Your task to perform on an android device: make emails show in primary in the gmail app Image 0: 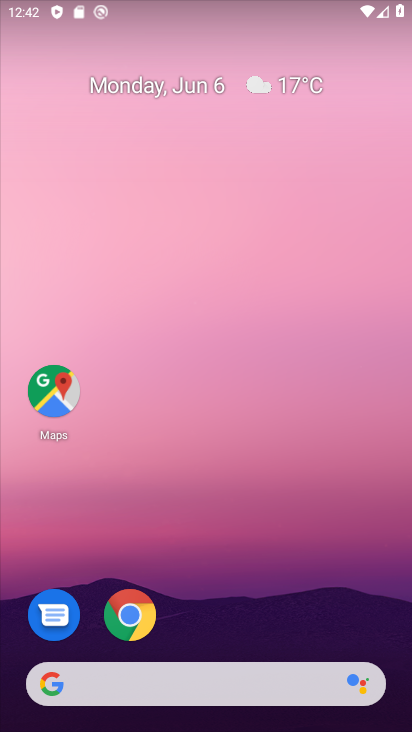
Step 0: drag from (204, 648) to (227, 192)
Your task to perform on an android device: make emails show in primary in the gmail app Image 1: 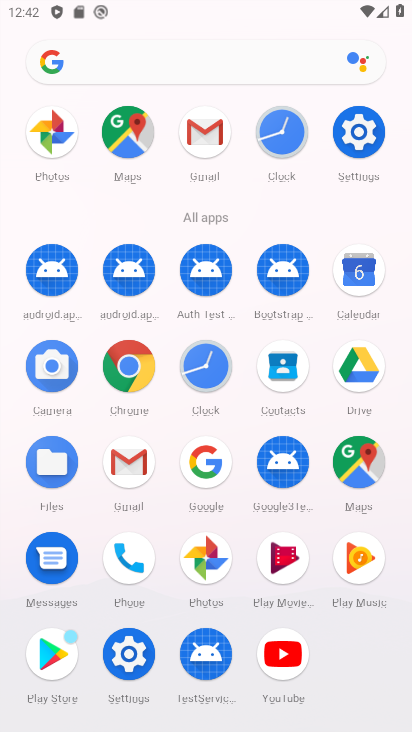
Step 1: click (129, 466)
Your task to perform on an android device: make emails show in primary in the gmail app Image 2: 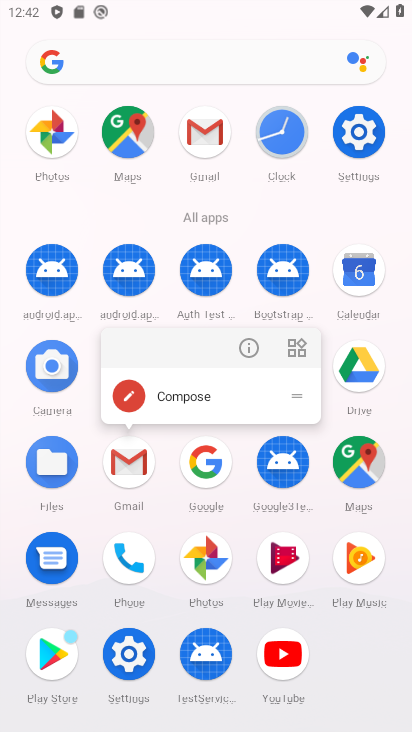
Step 2: click (249, 334)
Your task to perform on an android device: make emails show in primary in the gmail app Image 3: 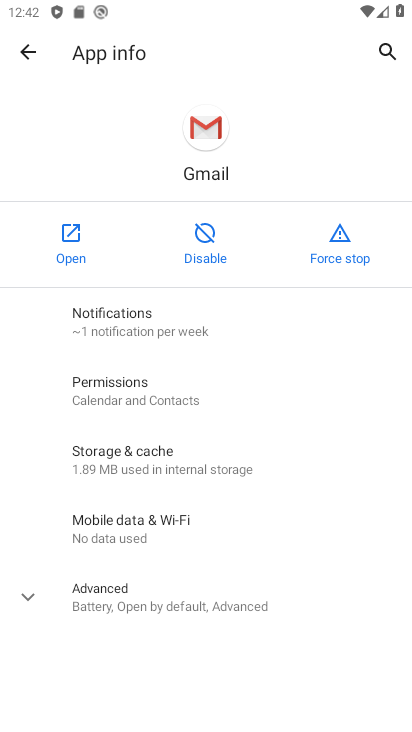
Step 3: click (80, 252)
Your task to perform on an android device: make emails show in primary in the gmail app Image 4: 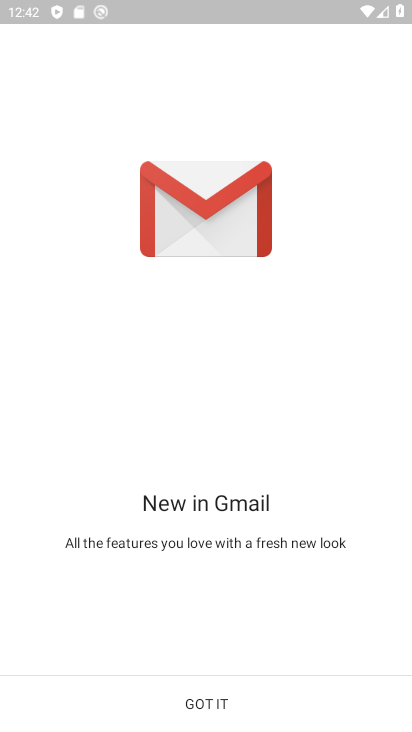
Step 4: click (176, 705)
Your task to perform on an android device: make emails show in primary in the gmail app Image 5: 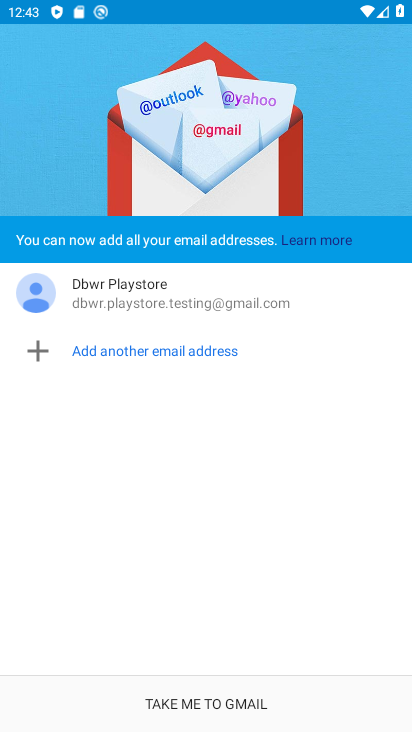
Step 5: click (179, 703)
Your task to perform on an android device: make emails show in primary in the gmail app Image 6: 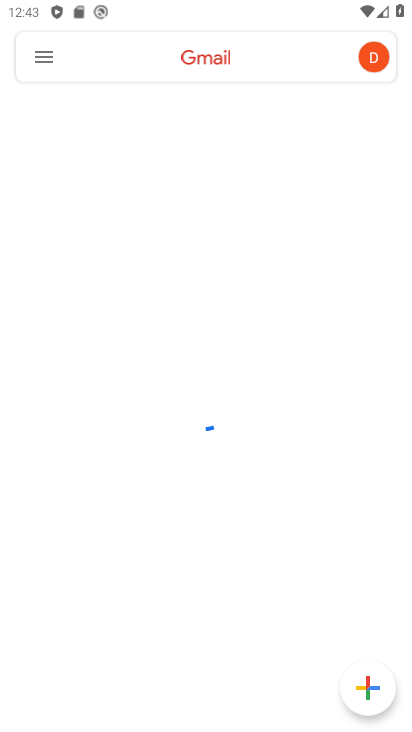
Step 6: click (40, 65)
Your task to perform on an android device: make emails show in primary in the gmail app Image 7: 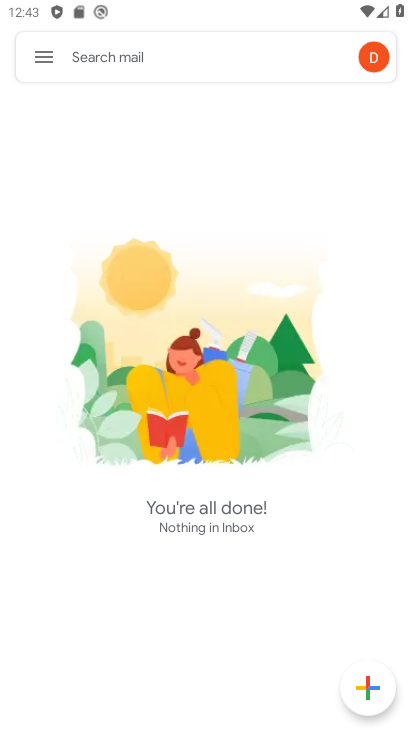
Step 7: click (37, 54)
Your task to perform on an android device: make emails show in primary in the gmail app Image 8: 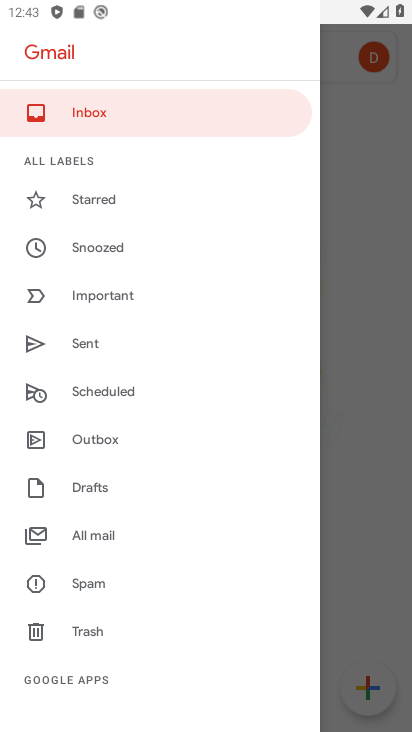
Step 8: drag from (171, 583) to (269, 186)
Your task to perform on an android device: make emails show in primary in the gmail app Image 9: 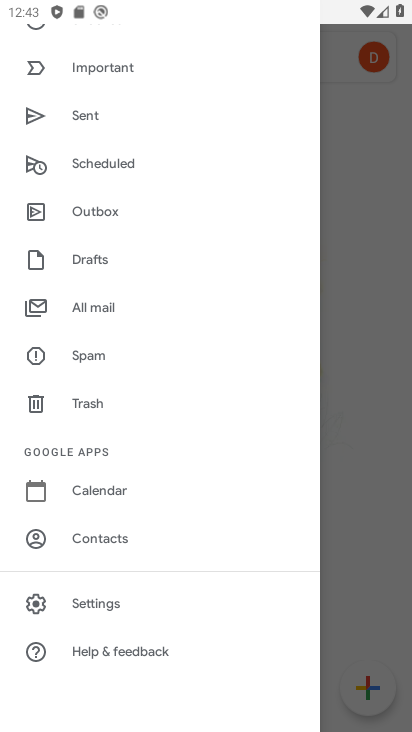
Step 9: drag from (174, 209) to (222, 729)
Your task to perform on an android device: make emails show in primary in the gmail app Image 10: 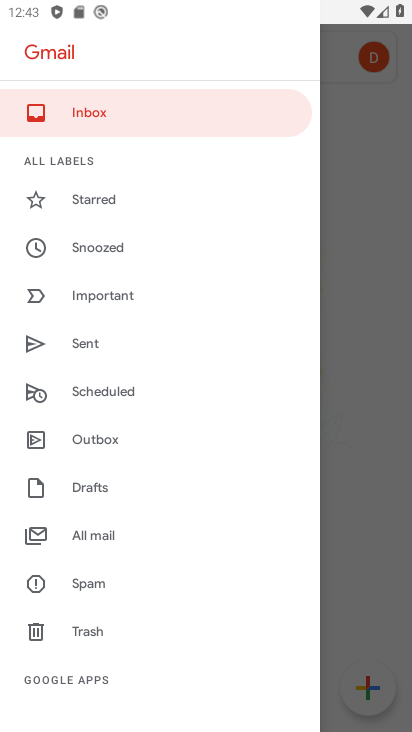
Step 10: drag from (189, 644) to (214, 399)
Your task to perform on an android device: make emails show in primary in the gmail app Image 11: 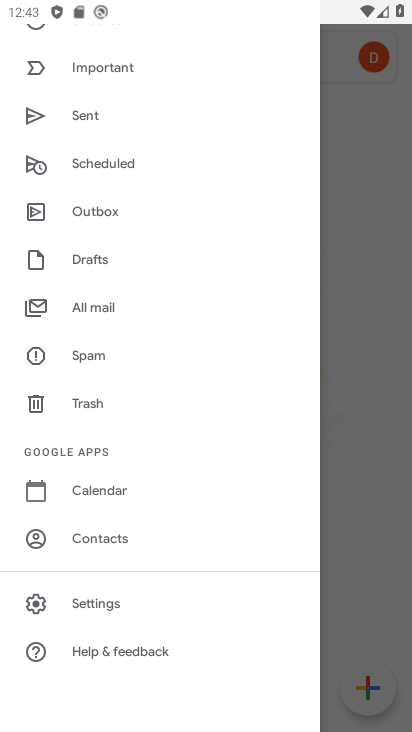
Step 11: drag from (197, 543) to (215, 231)
Your task to perform on an android device: make emails show in primary in the gmail app Image 12: 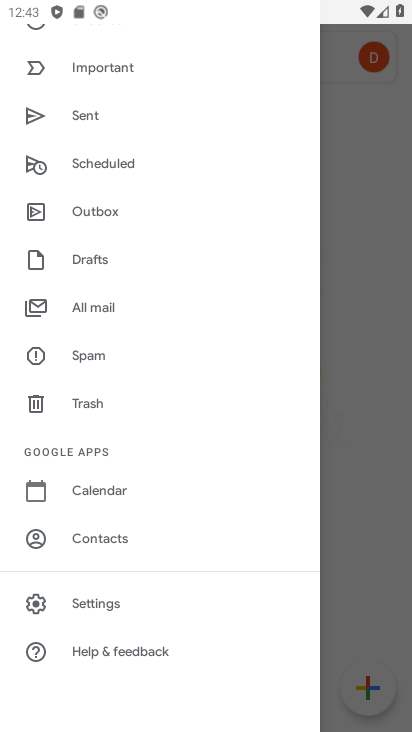
Step 12: drag from (189, 568) to (220, 275)
Your task to perform on an android device: make emails show in primary in the gmail app Image 13: 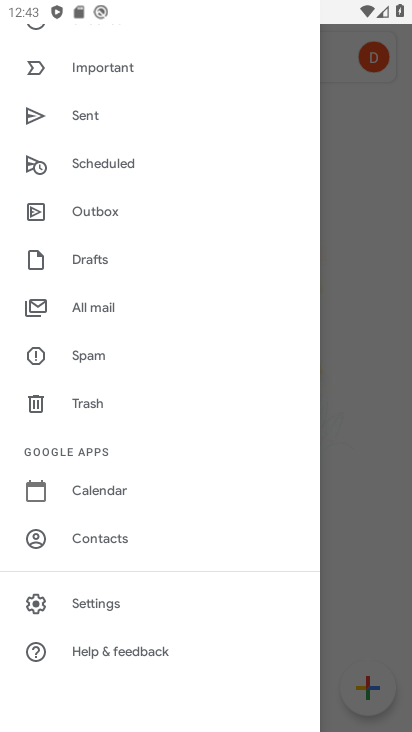
Step 13: drag from (180, 338) to (184, 727)
Your task to perform on an android device: make emails show in primary in the gmail app Image 14: 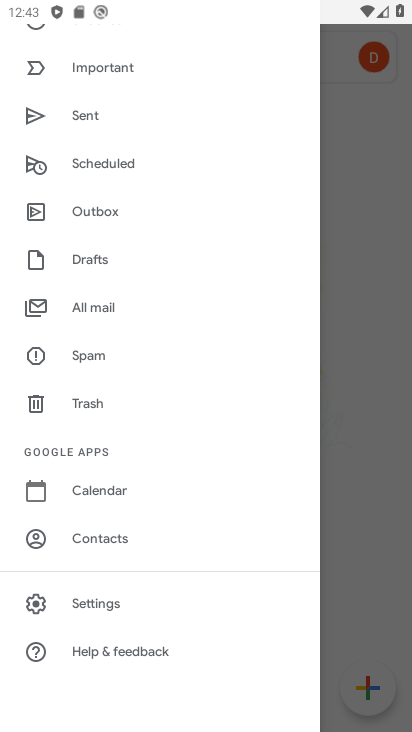
Step 14: drag from (122, 128) to (257, 713)
Your task to perform on an android device: make emails show in primary in the gmail app Image 15: 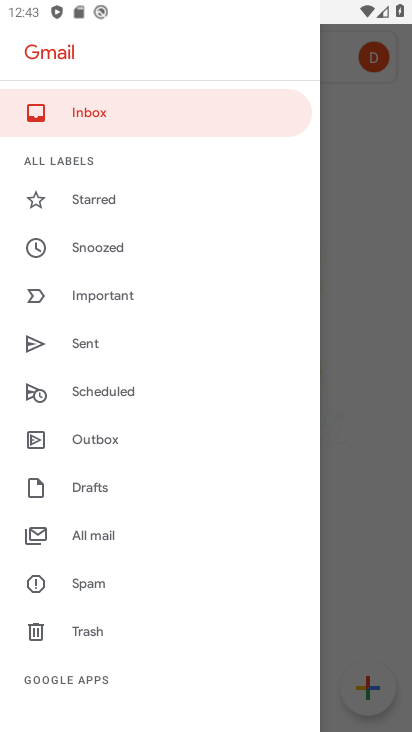
Step 15: click (51, 114)
Your task to perform on an android device: make emails show in primary in the gmail app Image 16: 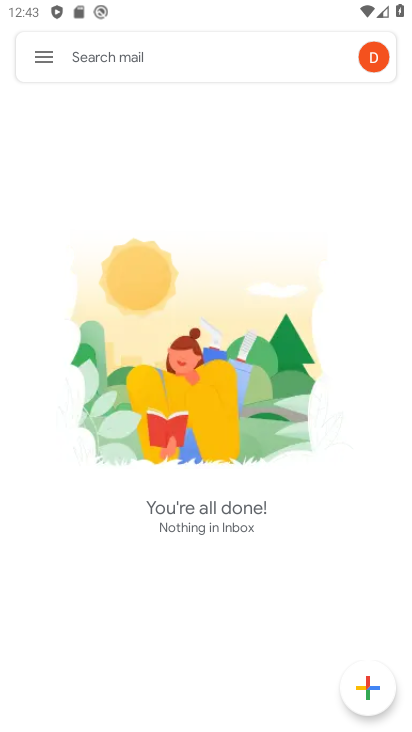
Step 16: drag from (117, 503) to (220, 153)
Your task to perform on an android device: make emails show in primary in the gmail app Image 17: 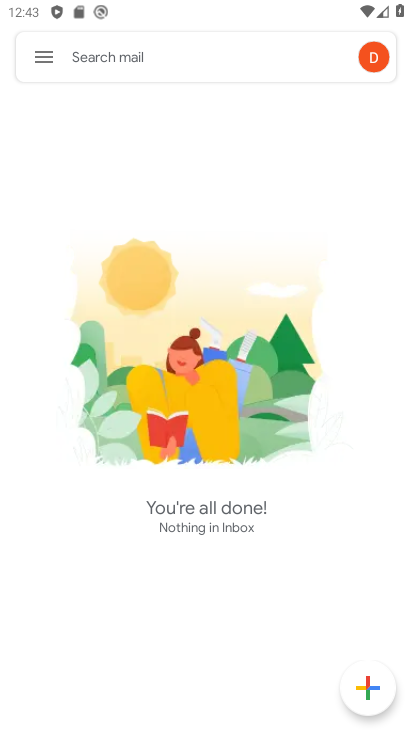
Step 17: drag from (250, 625) to (253, 296)
Your task to perform on an android device: make emails show in primary in the gmail app Image 18: 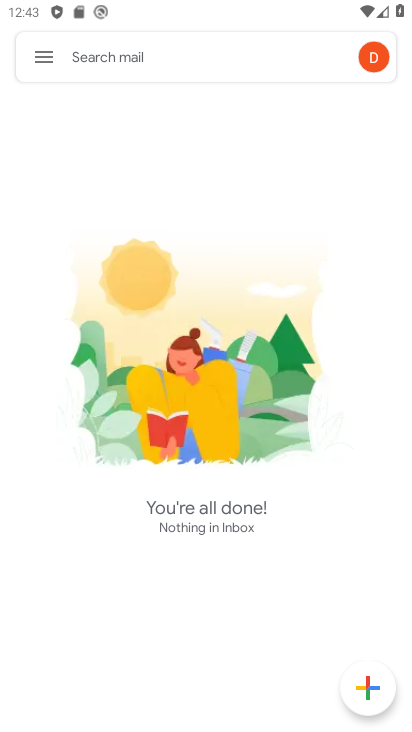
Step 18: click (31, 62)
Your task to perform on an android device: make emails show in primary in the gmail app Image 19: 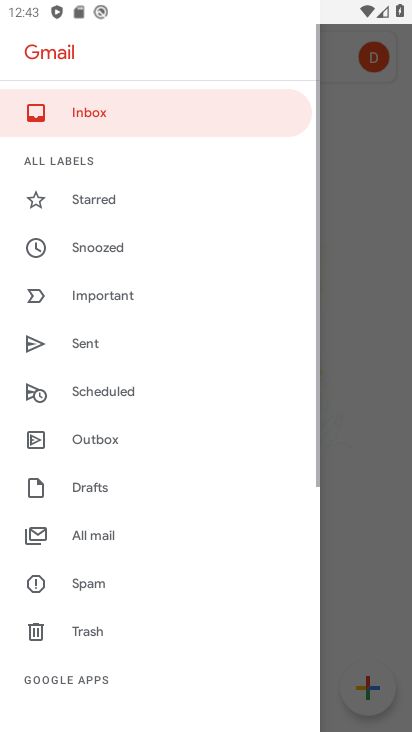
Step 19: drag from (177, 592) to (189, 419)
Your task to perform on an android device: make emails show in primary in the gmail app Image 20: 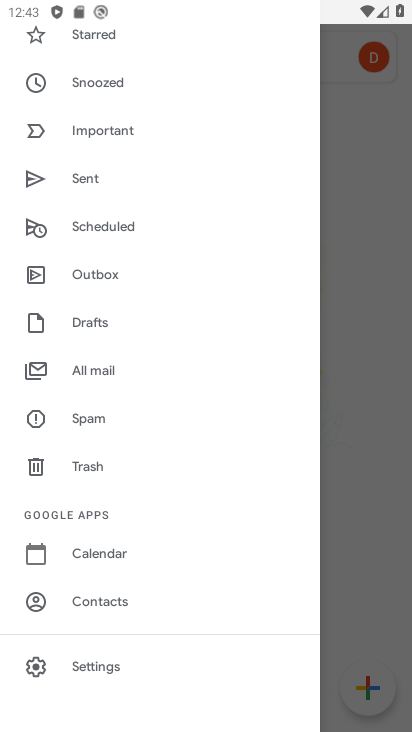
Step 20: drag from (162, 675) to (214, 438)
Your task to perform on an android device: make emails show in primary in the gmail app Image 21: 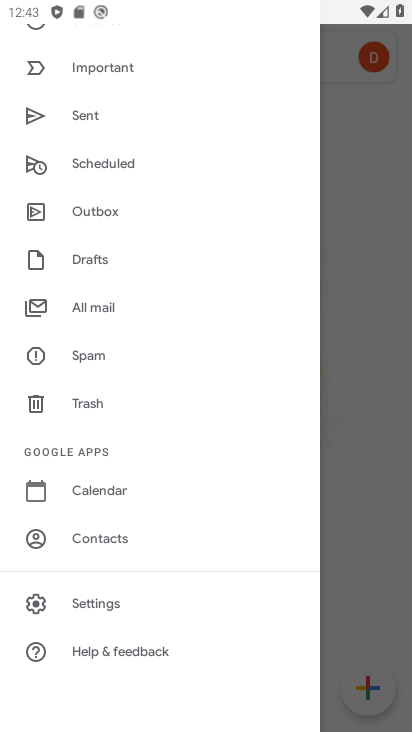
Step 21: drag from (159, 651) to (179, 410)
Your task to perform on an android device: make emails show in primary in the gmail app Image 22: 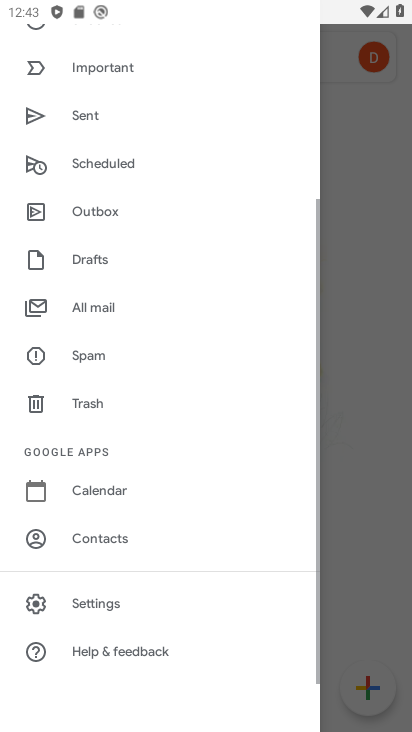
Step 22: click (180, 285)
Your task to perform on an android device: make emails show in primary in the gmail app Image 23: 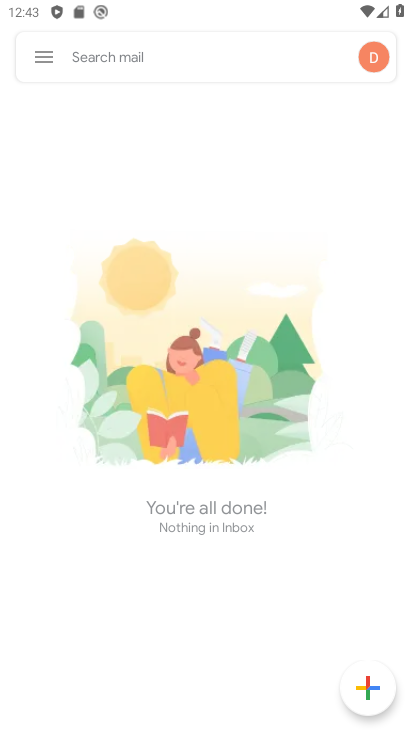
Step 23: drag from (175, 266) to (177, 731)
Your task to perform on an android device: make emails show in primary in the gmail app Image 24: 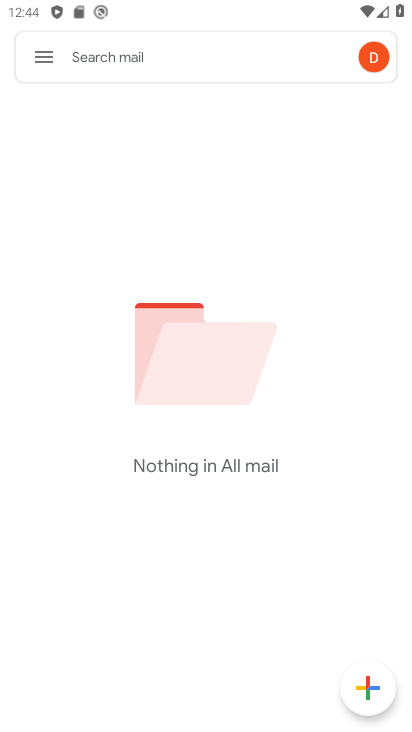
Step 24: drag from (185, 369) to (254, 722)
Your task to perform on an android device: make emails show in primary in the gmail app Image 25: 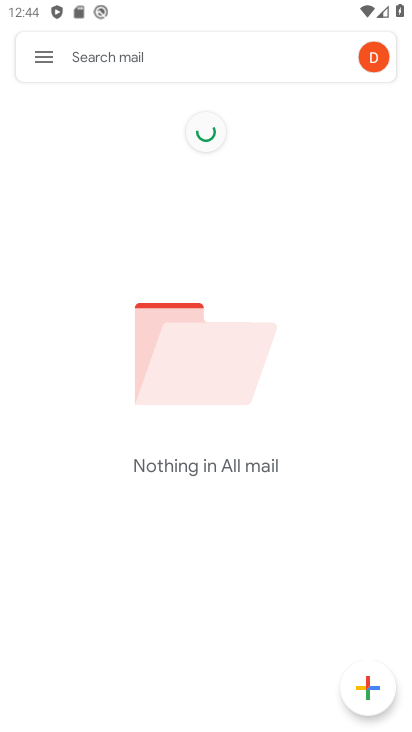
Step 25: click (50, 52)
Your task to perform on an android device: make emails show in primary in the gmail app Image 26: 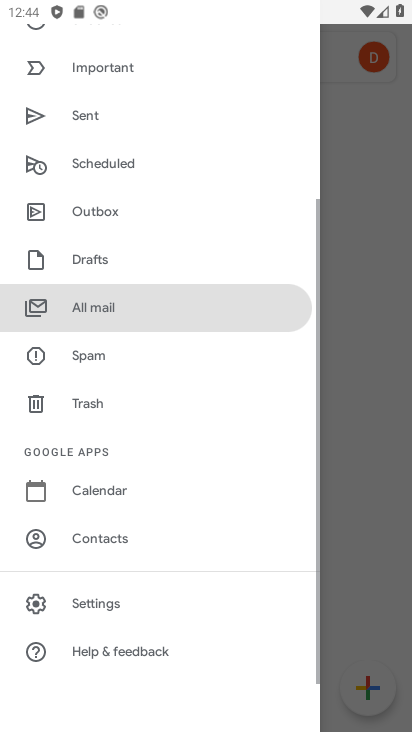
Step 26: drag from (173, 174) to (296, 731)
Your task to perform on an android device: make emails show in primary in the gmail app Image 27: 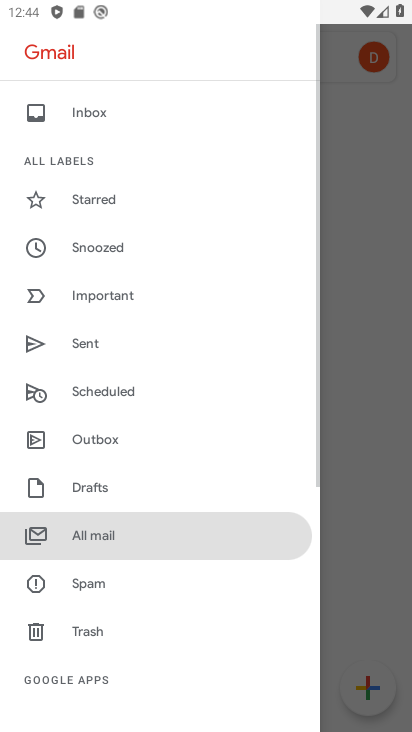
Step 27: click (126, 118)
Your task to perform on an android device: make emails show in primary in the gmail app Image 28: 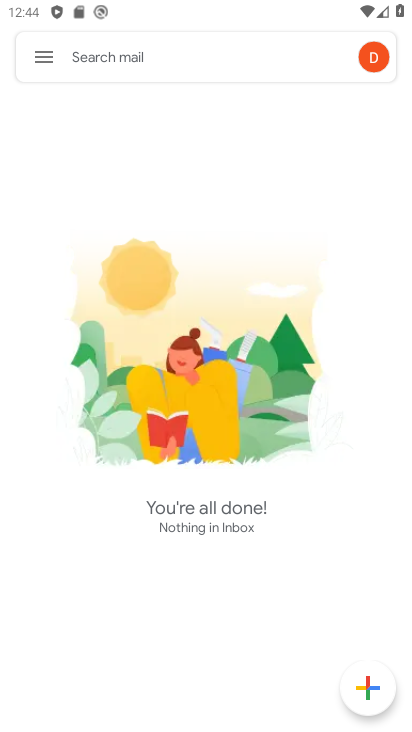
Step 28: drag from (278, 570) to (278, 297)
Your task to perform on an android device: make emails show in primary in the gmail app Image 29: 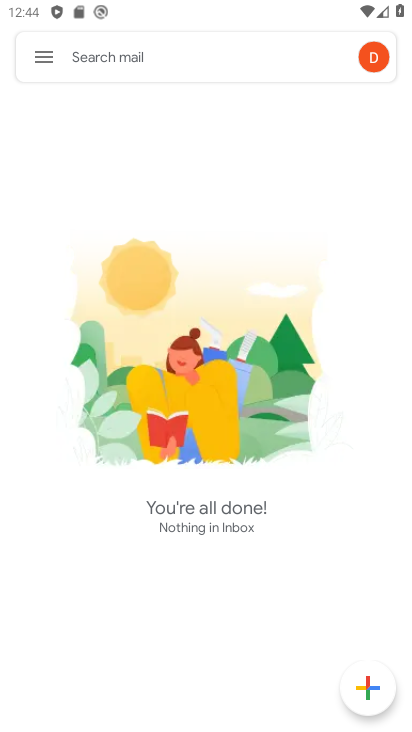
Step 29: click (51, 66)
Your task to perform on an android device: make emails show in primary in the gmail app Image 30: 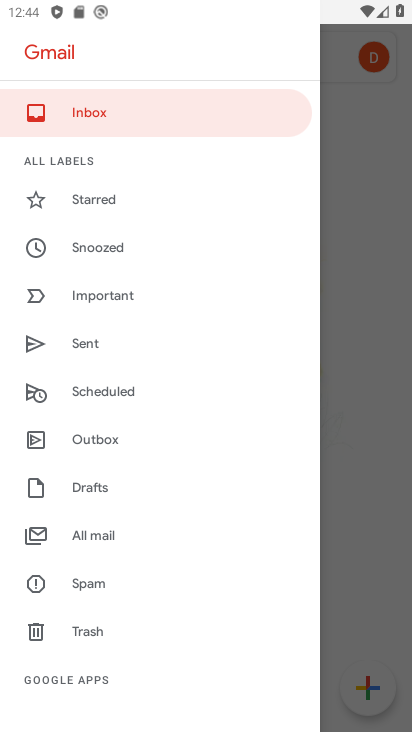
Step 30: drag from (141, 598) to (196, 181)
Your task to perform on an android device: make emails show in primary in the gmail app Image 31: 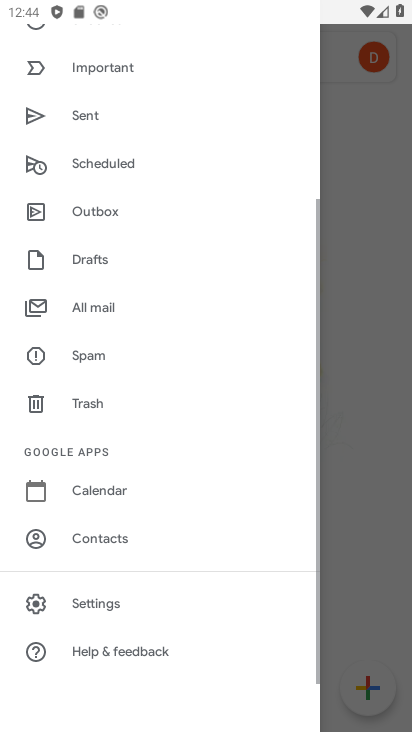
Step 31: drag from (139, 589) to (197, 266)
Your task to perform on an android device: make emails show in primary in the gmail app Image 32: 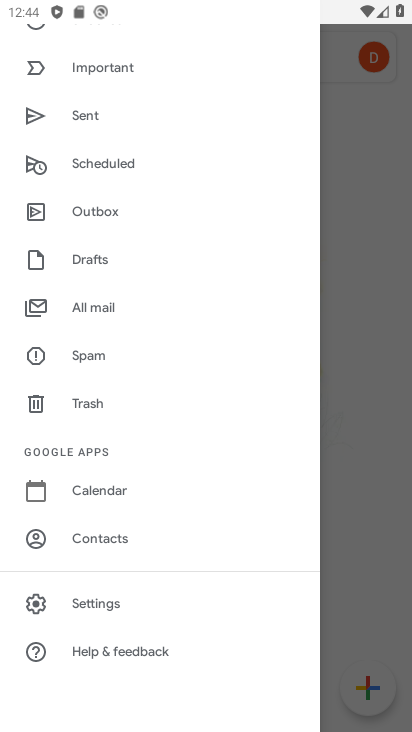
Step 32: drag from (158, 529) to (209, 152)
Your task to perform on an android device: make emails show in primary in the gmail app Image 33: 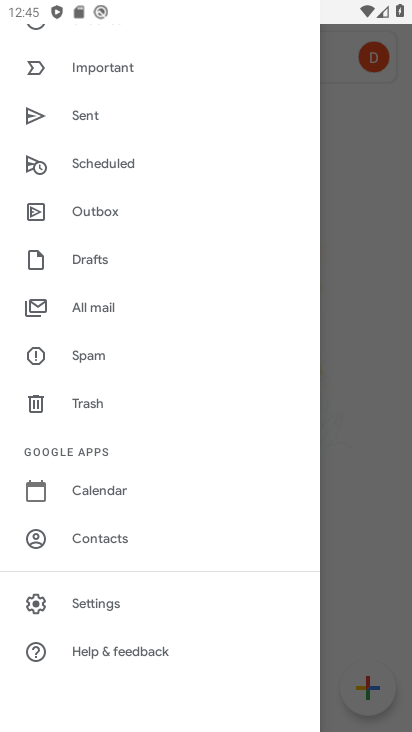
Step 33: drag from (104, 615) to (178, 209)
Your task to perform on an android device: make emails show in primary in the gmail app Image 34: 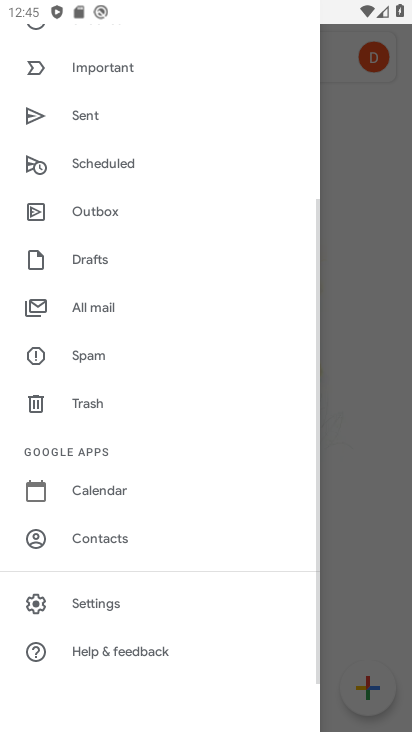
Step 34: drag from (176, 473) to (196, 287)
Your task to perform on an android device: make emails show in primary in the gmail app Image 35: 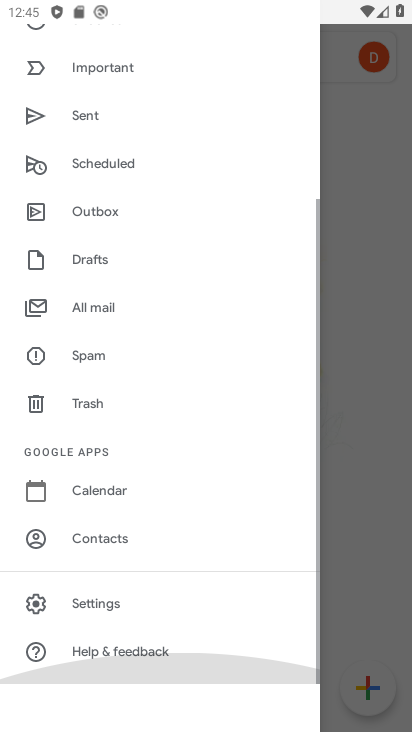
Step 35: click (227, 731)
Your task to perform on an android device: make emails show in primary in the gmail app Image 36: 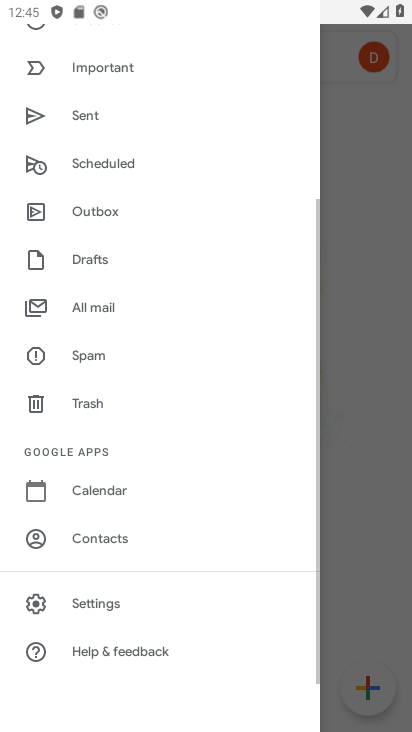
Step 36: drag from (145, 86) to (218, 525)
Your task to perform on an android device: make emails show in primary in the gmail app Image 37: 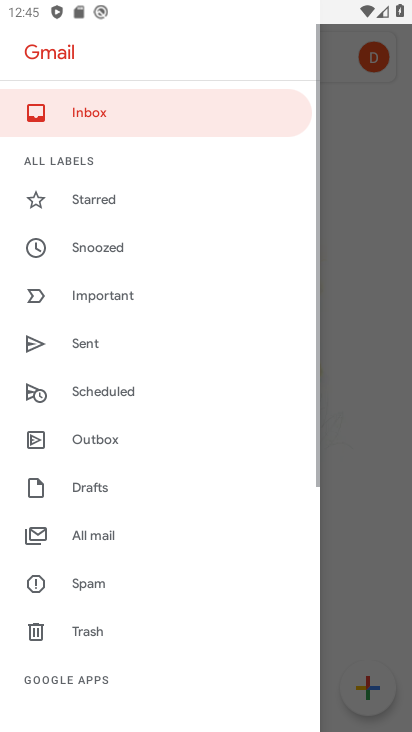
Step 37: click (95, 106)
Your task to perform on an android device: make emails show in primary in the gmail app Image 38: 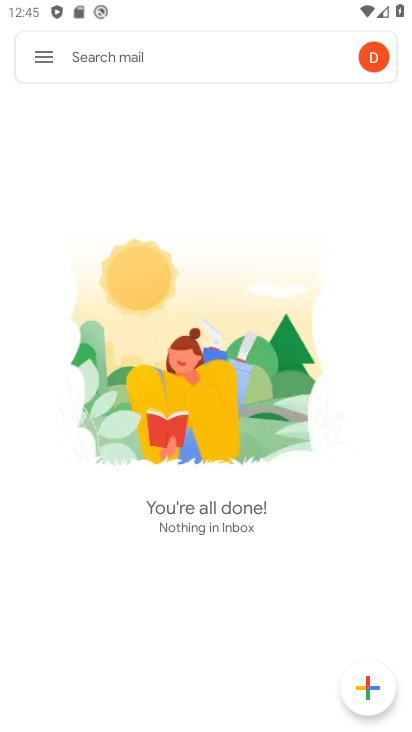
Step 38: click (49, 43)
Your task to perform on an android device: make emails show in primary in the gmail app Image 39: 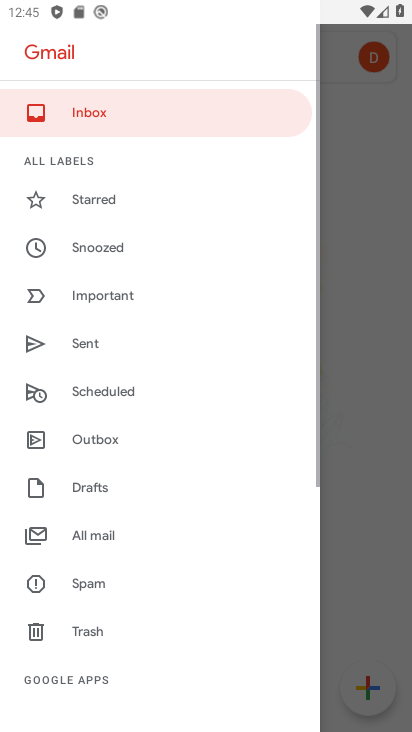
Step 39: drag from (165, 178) to (246, 529)
Your task to perform on an android device: make emails show in primary in the gmail app Image 40: 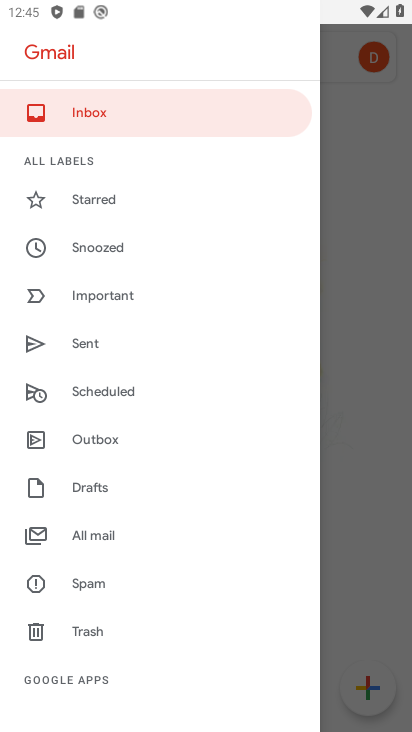
Step 40: drag from (91, 211) to (193, 678)
Your task to perform on an android device: make emails show in primary in the gmail app Image 41: 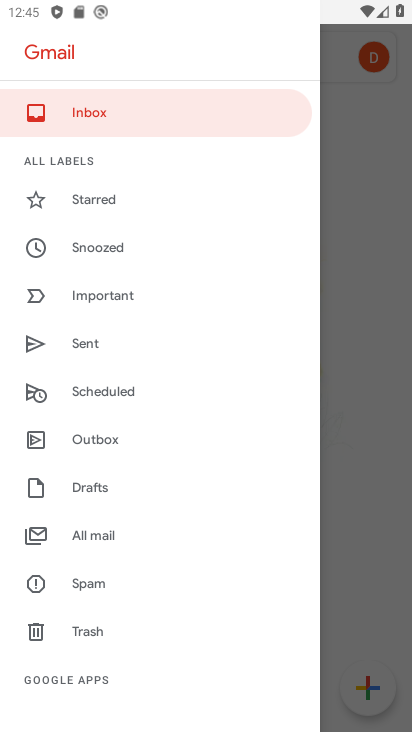
Step 41: click (103, 95)
Your task to perform on an android device: make emails show in primary in the gmail app Image 42: 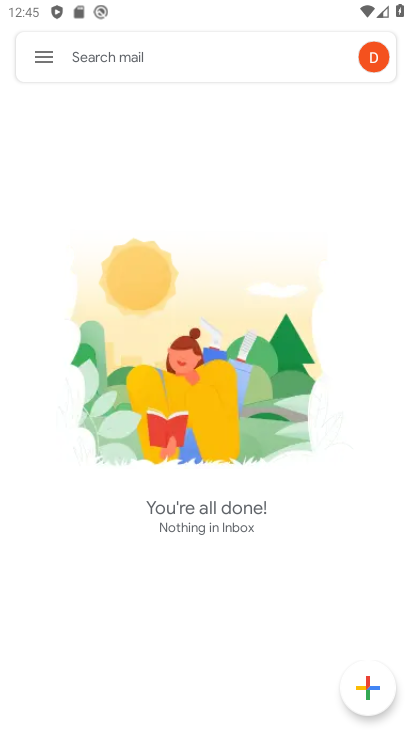
Step 42: task complete